Your task to perform on an android device: turn off location history Image 0: 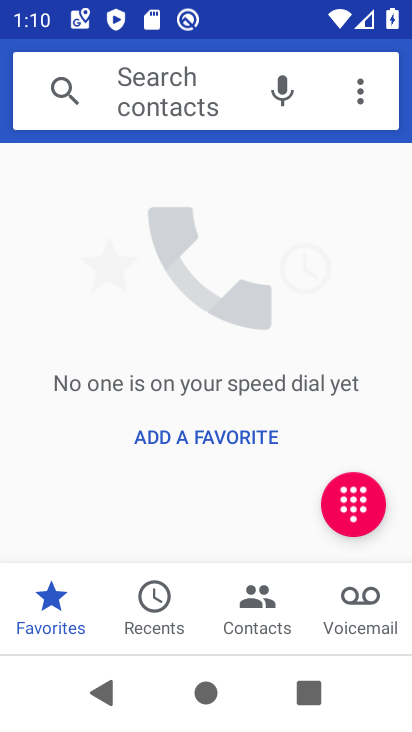
Step 0: press home button
Your task to perform on an android device: turn off location history Image 1: 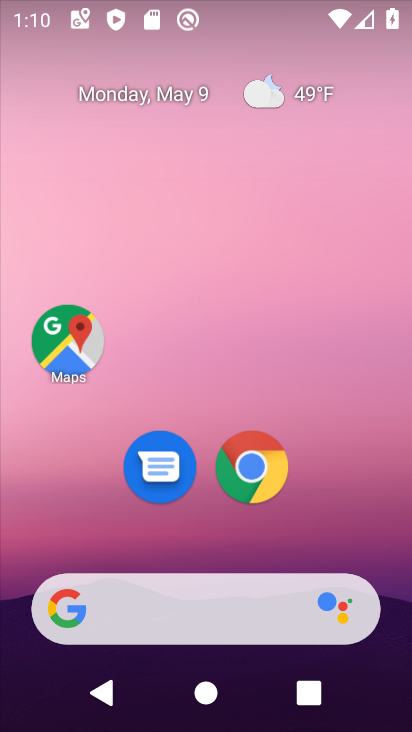
Step 1: drag from (357, 499) to (359, 111)
Your task to perform on an android device: turn off location history Image 2: 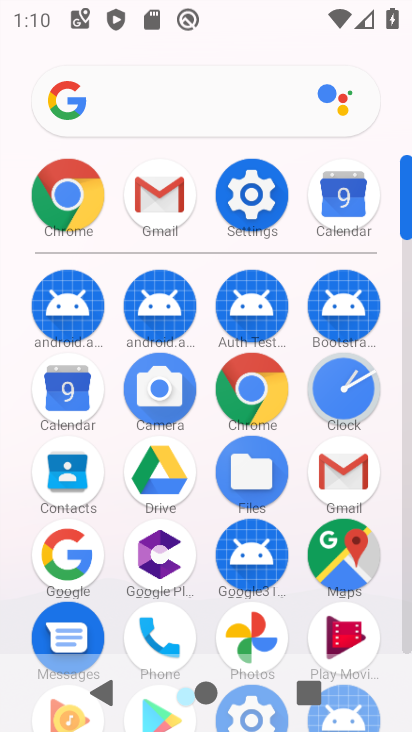
Step 2: click (260, 209)
Your task to perform on an android device: turn off location history Image 3: 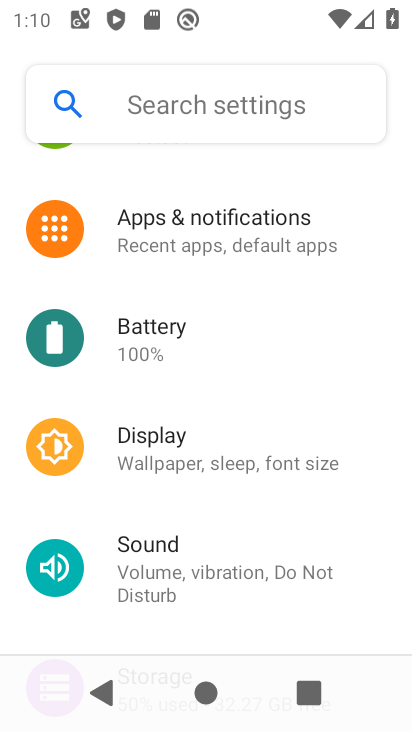
Step 3: drag from (279, 519) to (323, 274)
Your task to perform on an android device: turn off location history Image 4: 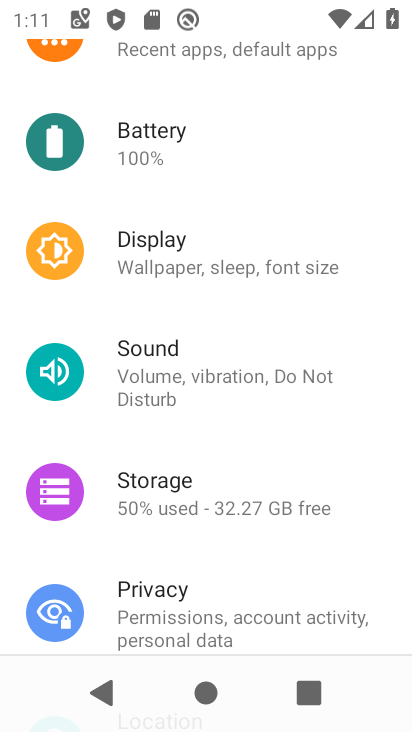
Step 4: drag from (322, 552) to (338, 238)
Your task to perform on an android device: turn off location history Image 5: 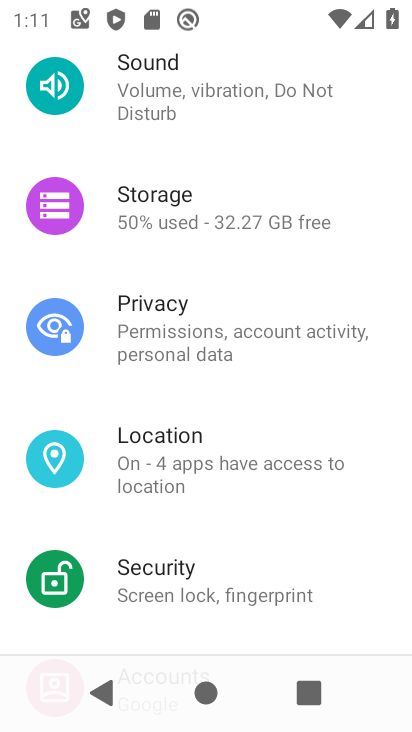
Step 5: click (215, 458)
Your task to perform on an android device: turn off location history Image 6: 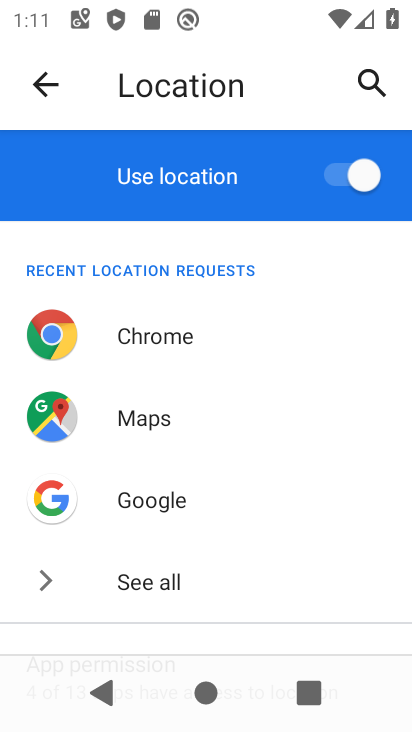
Step 6: drag from (244, 618) to (273, 277)
Your task to perform on an android device: turn off location history Image 7: 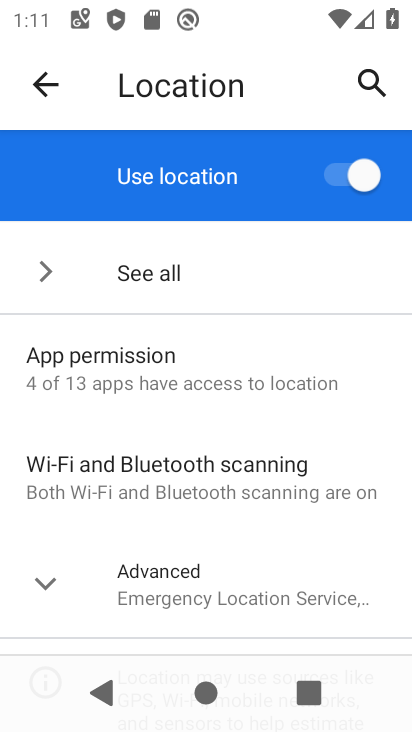
Step 7: click (242, 585)
Your task to perform on an android device: turn off location history Image 8: 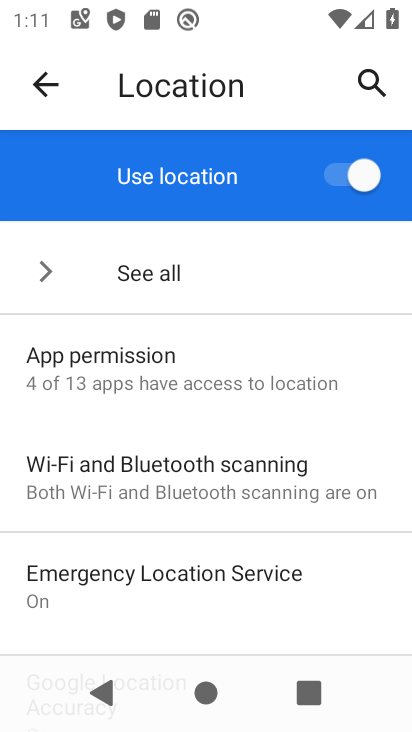
Step 8: drag from (303, 606) to (306, 304)
Your task to perform on an android device: turn off location history Image 9: 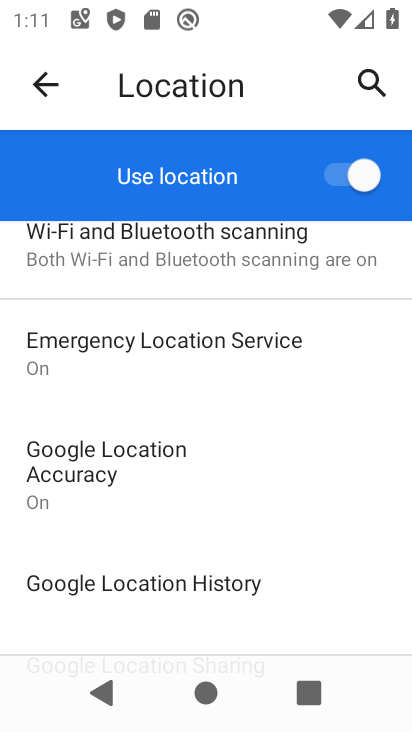
Step 9: drag from (307, 561) to (282, 369)
Your task to perform on an android device: turn off location history Image 10: 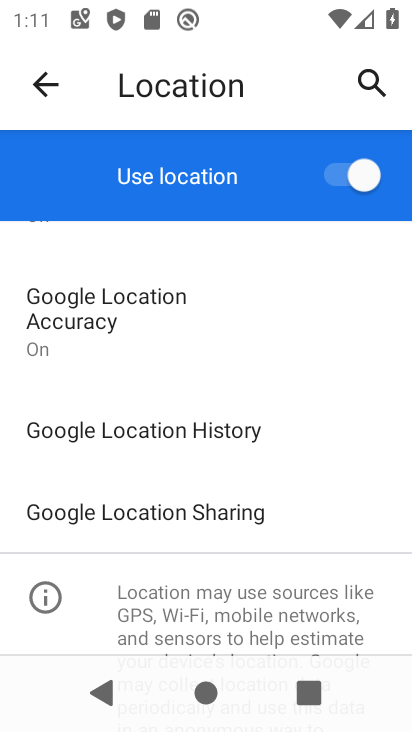
Step 10: click (201, 409)
Your task to perform on an android device: turn off location history Image 11: 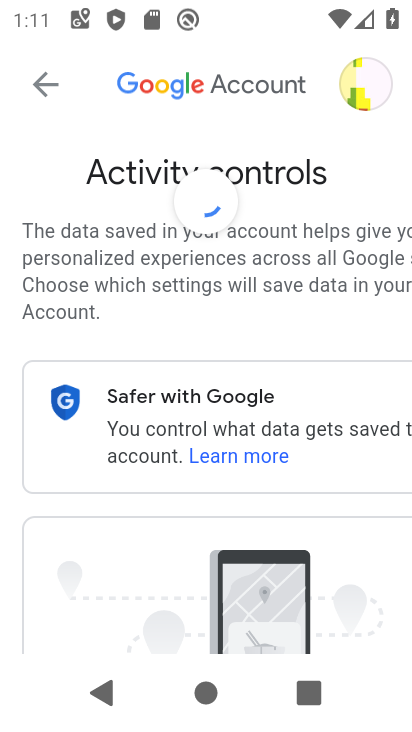
Step 11: task complete